Your task to perform on an android device: change keyboard looks Image 0: 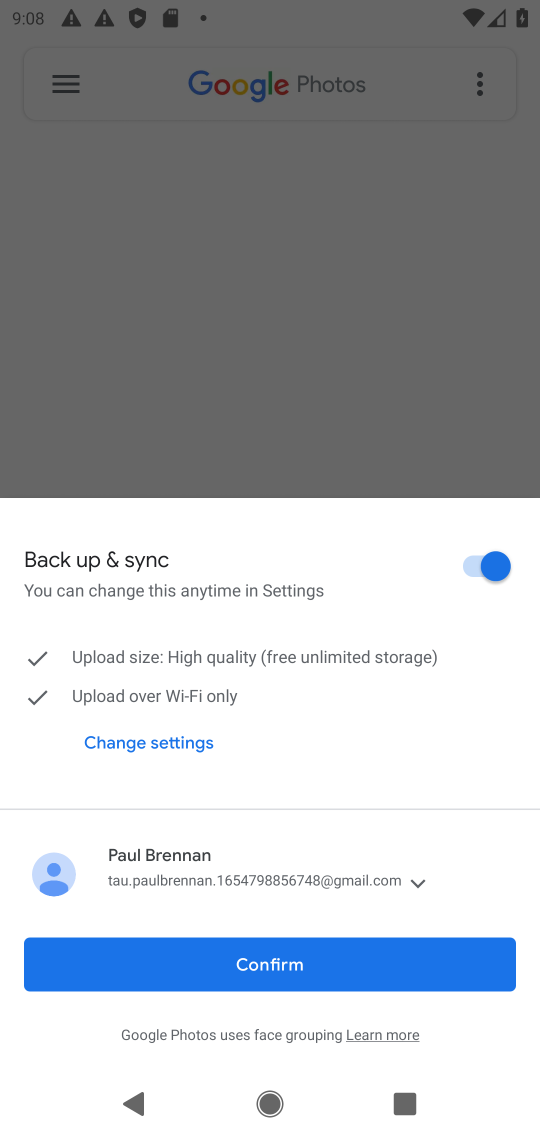
Step 0: click (264, 970)
Your task to perform on an android device: change keyboard looks Image 1: 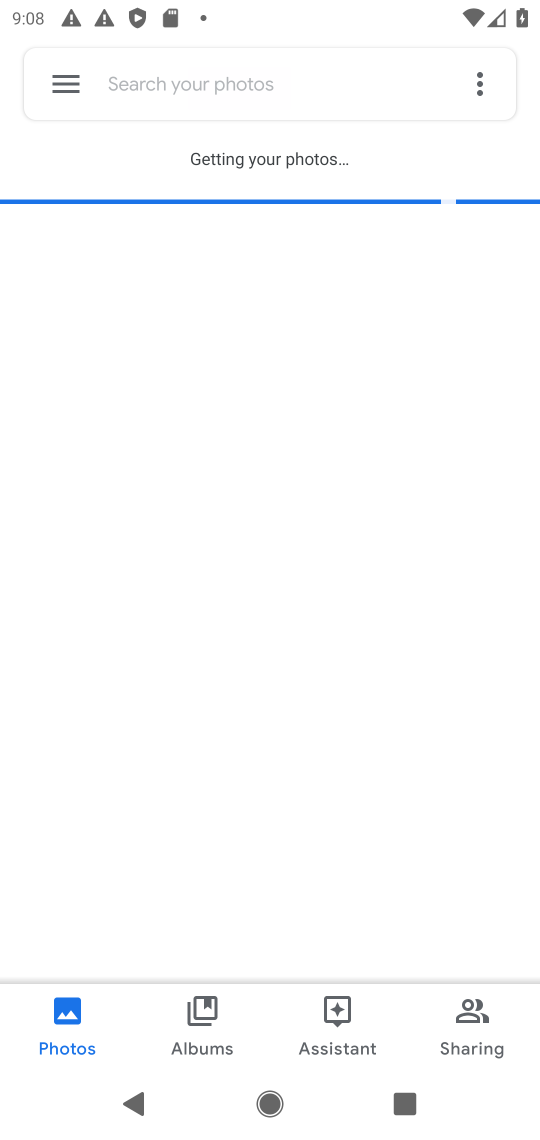
Step 1: press home button
Your task to perform on an android device: change keyboard looks Image 2: 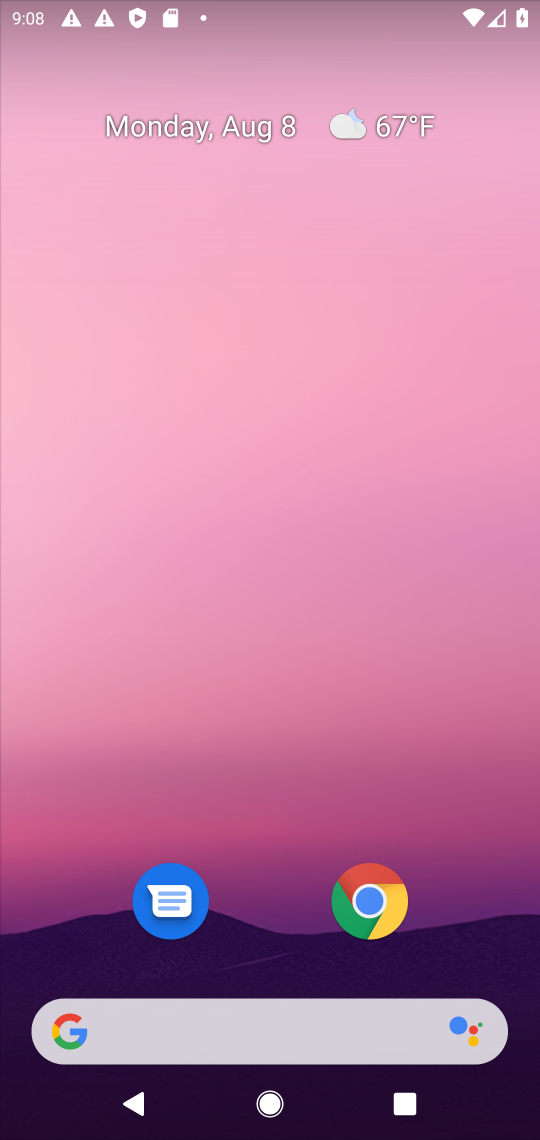
Step 2: click (235, 112)
Your task to perform on an android device: change keyboard looks Image 3: 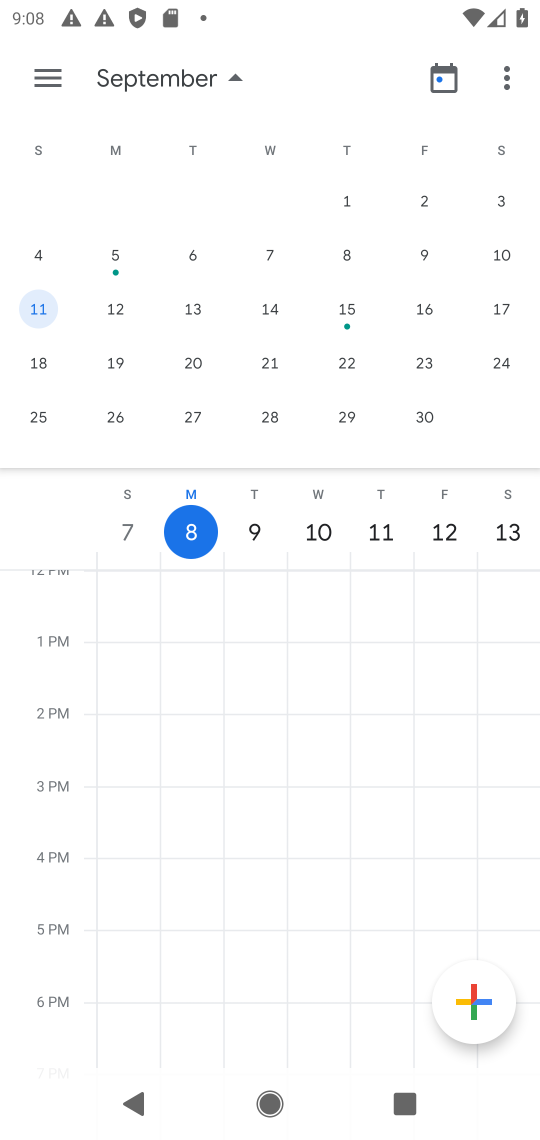
Step 3: click (295, 922)
Your task to perform on an android device: change keyboard looks Image 4: 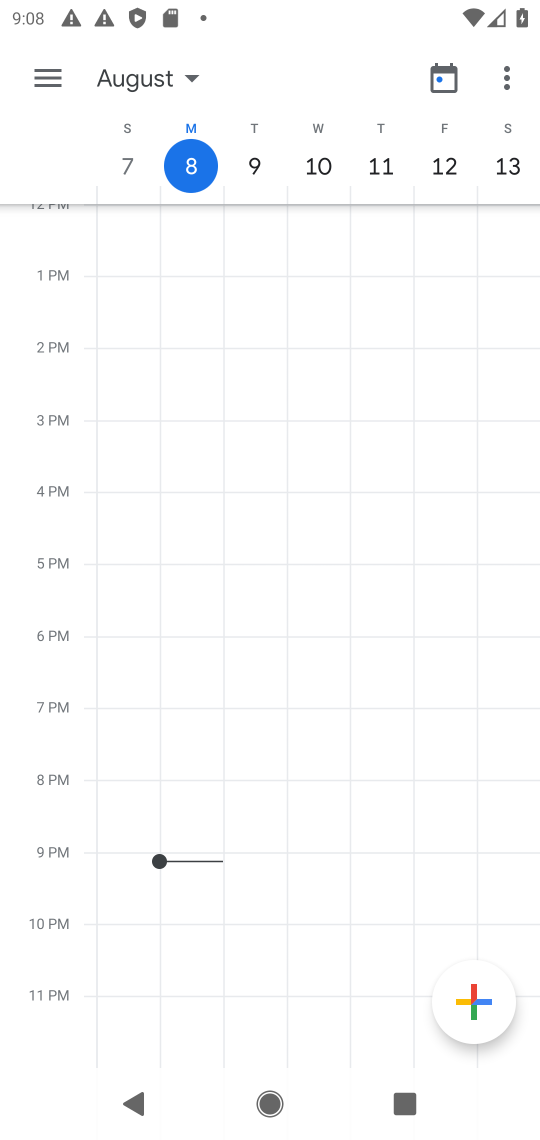
Step 4: press home button
Your task to perform on an android device: change keyboard looks Image 5: 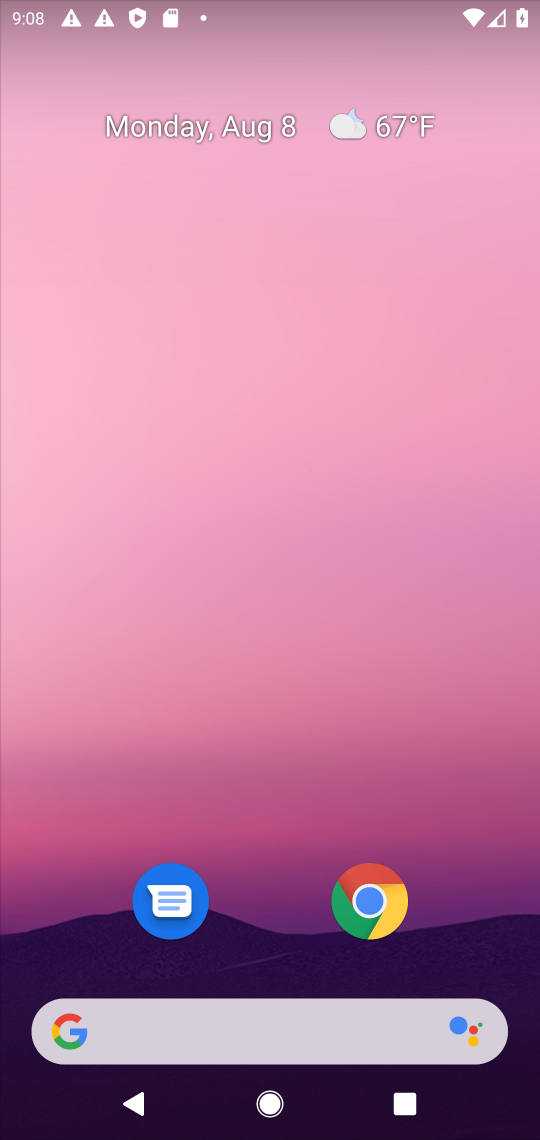
Step 5: drag from (290, 942) to (336, 4)
Your task to perform on an android device: change keyboard looks Image 6: 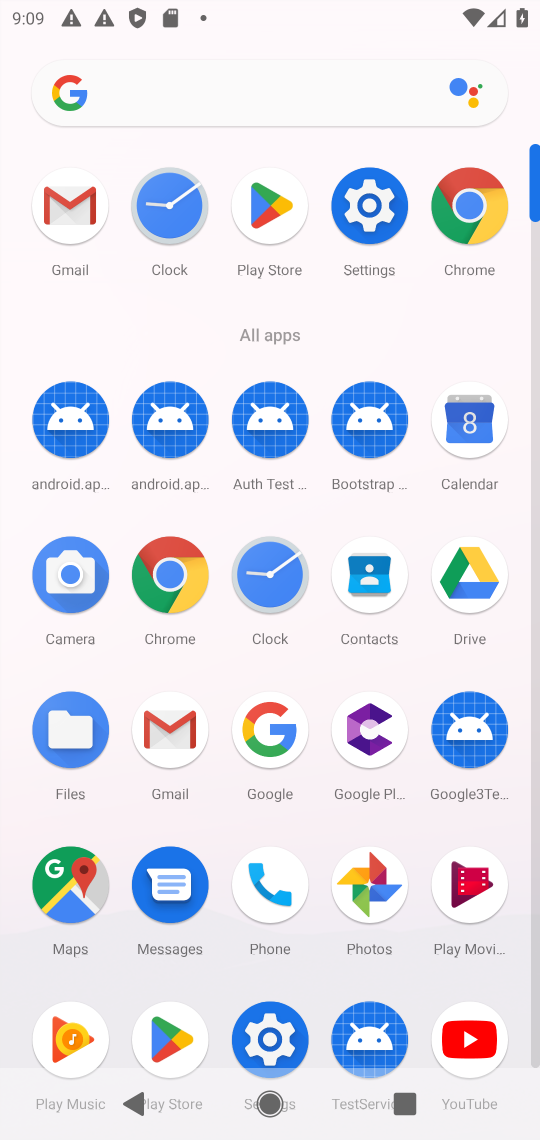
Step 6: click (368, 205)
Your task to perform on an android device: change keyboard looks Image 7: 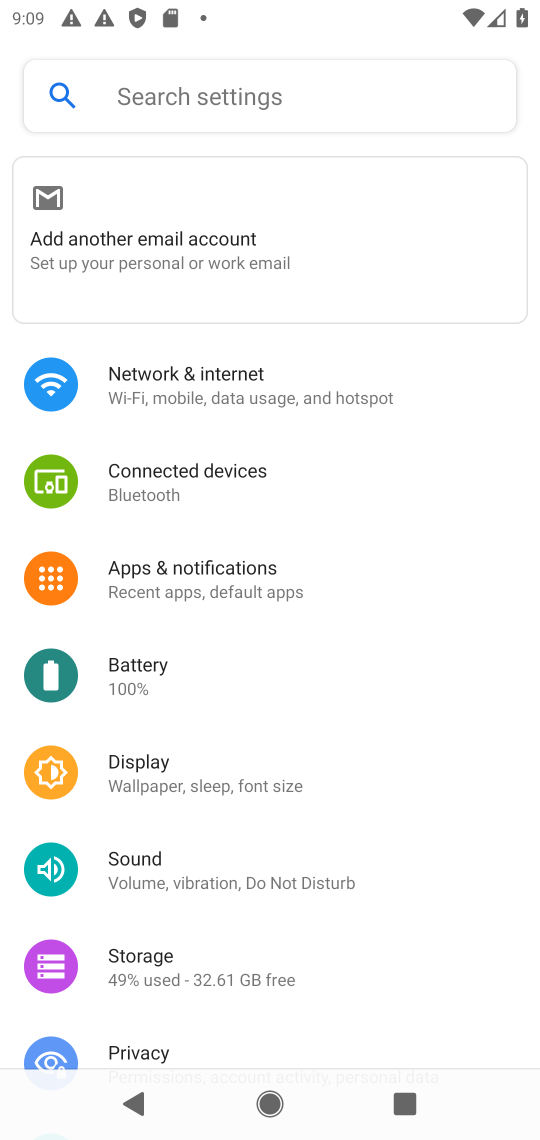
Step 7: drag from (176, 970) to (186, 446)
Your task to perform on an android device: change keyboard looks Image 8: 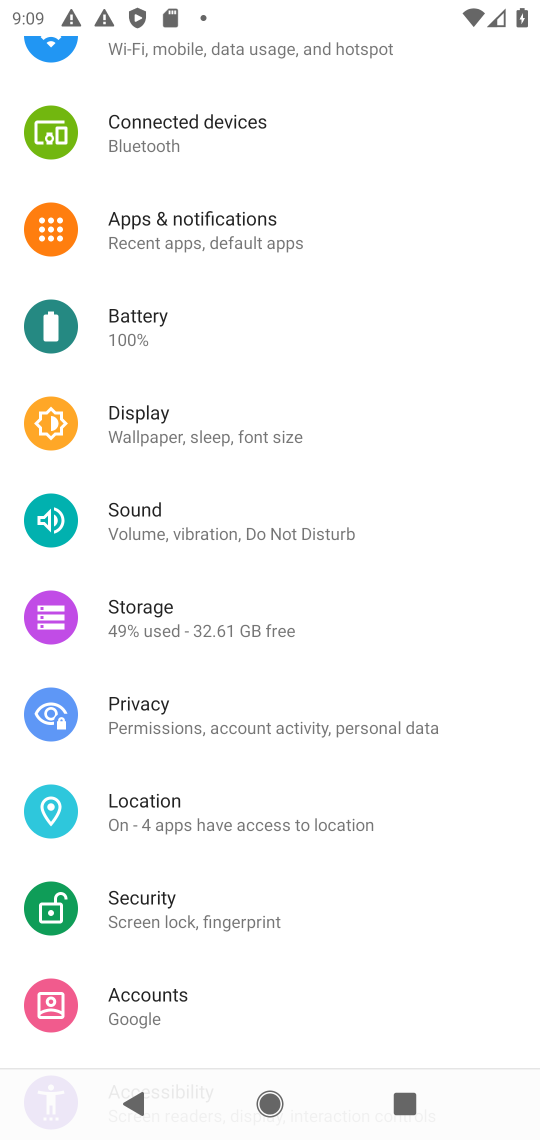
Step 8: drag from (150, 888) to (164, 514)
Your task to perform on an android device: change keyboard looks Image 9: 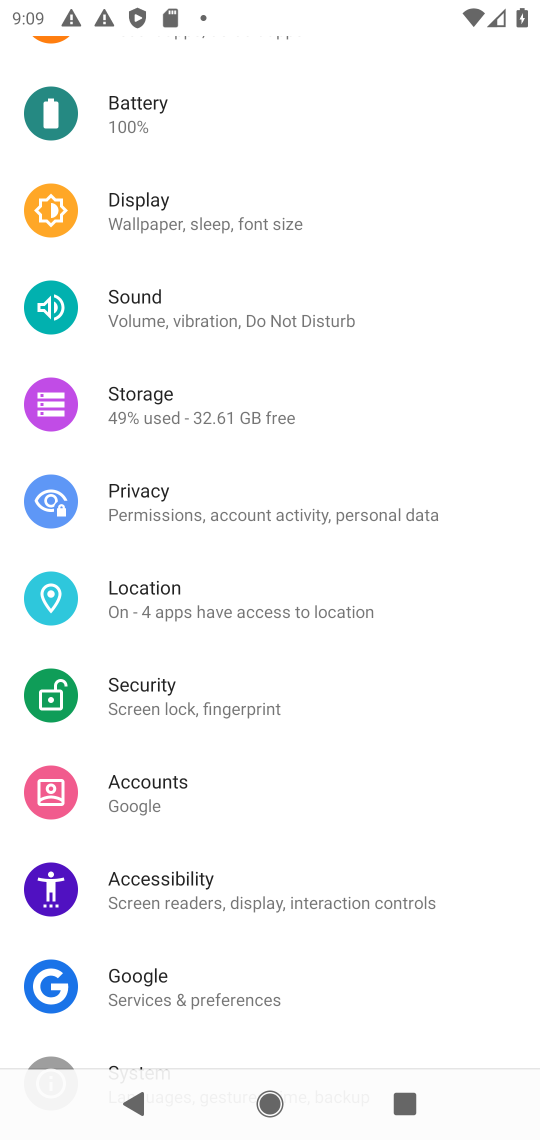
Step 9: drag from (173, 982) to (198, 381)
Your task to perform on an android device: change keyboard looks Image 10: 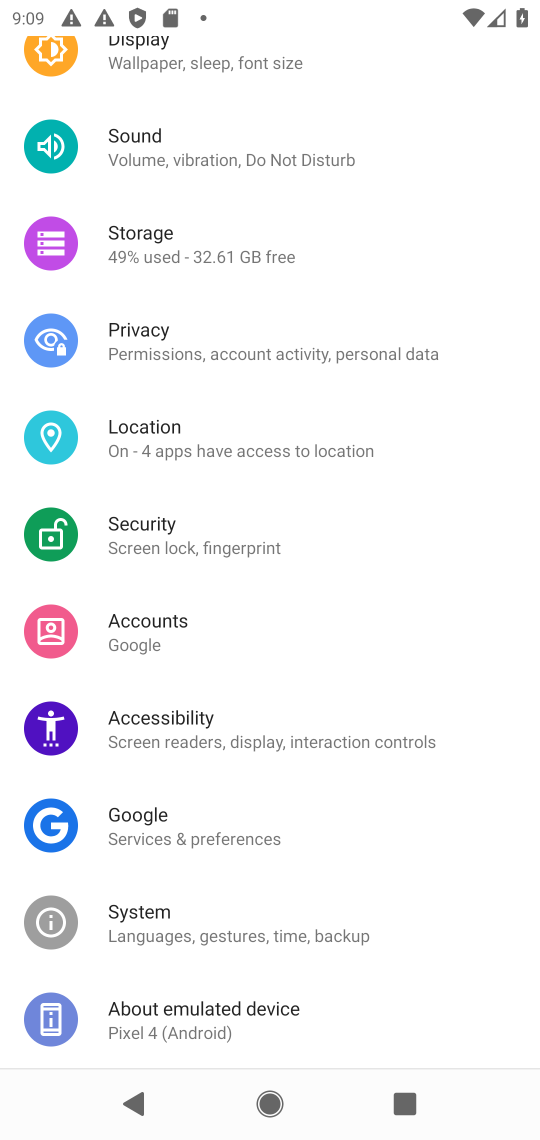
Step 10: click (157, 910)
Your task to perform on an android device: change keyboard looks Image 11: 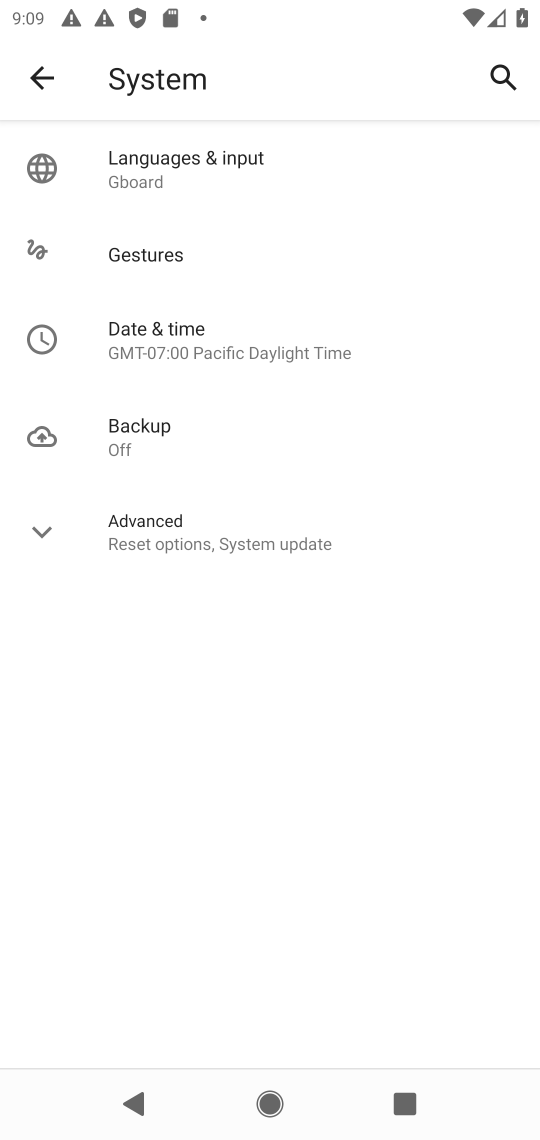
Step 11: click (133, 177)
Your task to perform on an android device: change keyboard looks Image 12: 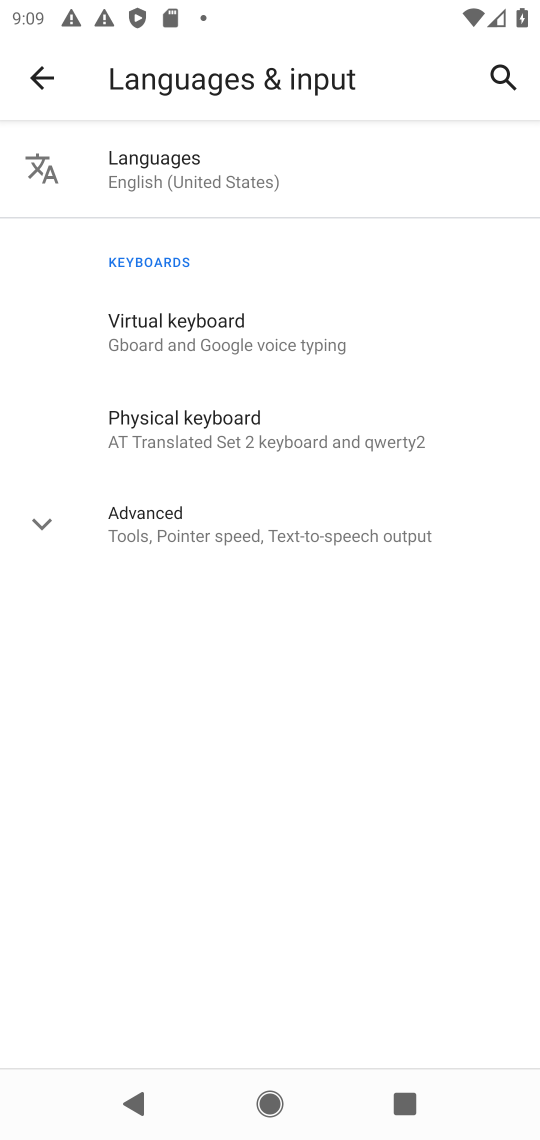
Step 12: click (158, 354)
Your task to perform on an android device: change keyboard looks Image 13: 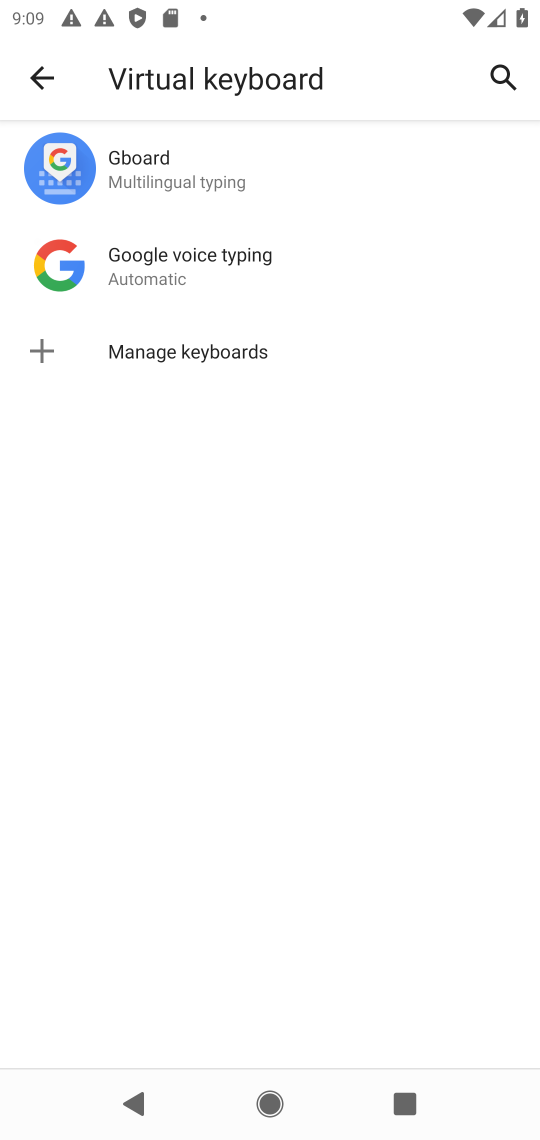
Step 13: click (143, 156)
Your task to perform on an android device: change keyboard looks Image 14: 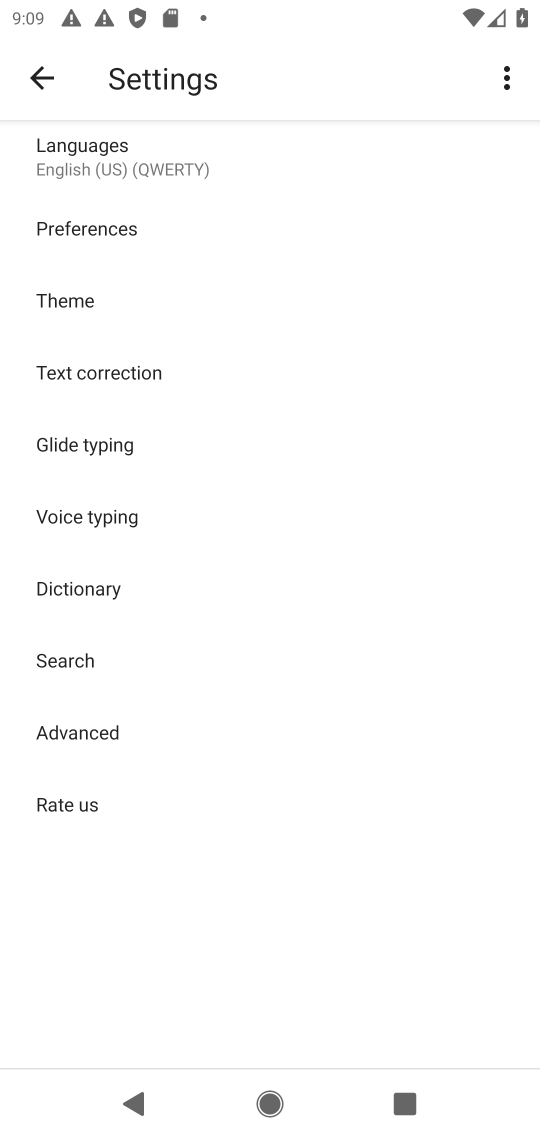
Step 14: click (74, 314)
Your task to perform on an android device: change keyboard looks Image 15: 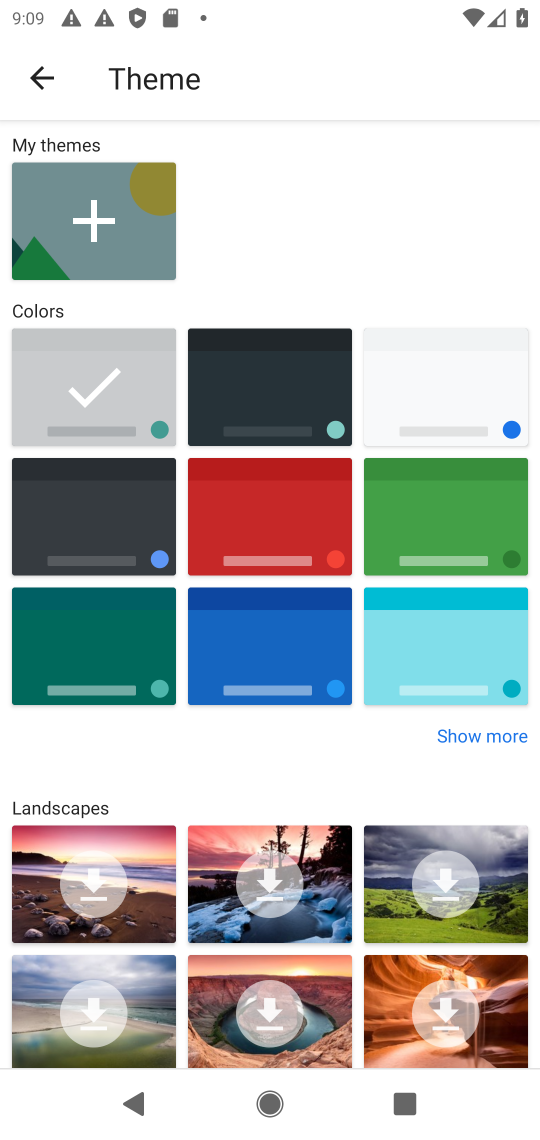
Step 15: click (248, 385)
Your task to perform on an android device: change keyboard looks Image 16: 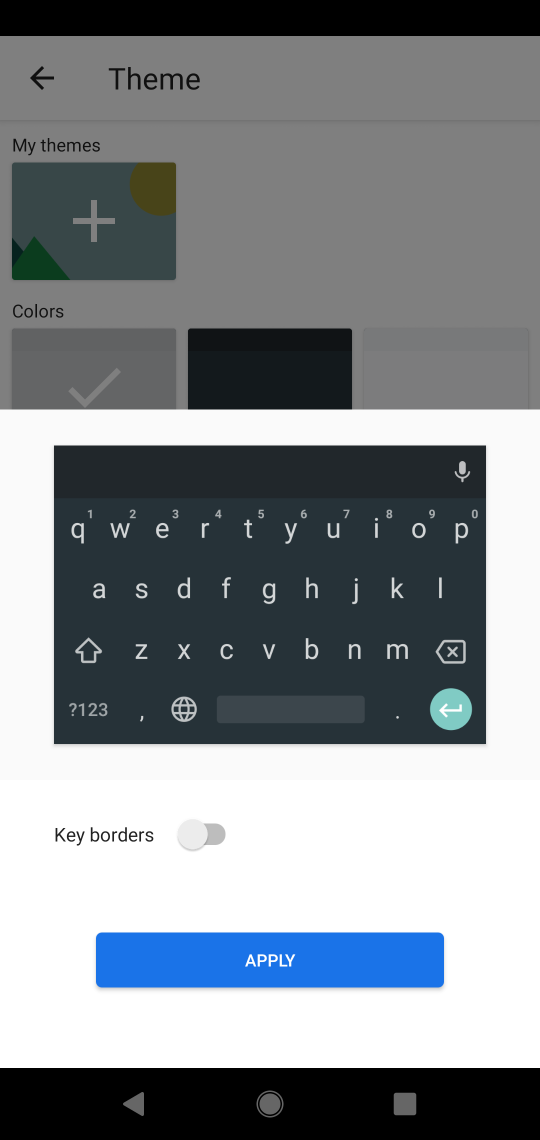
Step 16: click (277, 944)
Your task to perform on an android device: change keyboard looks Image 17: 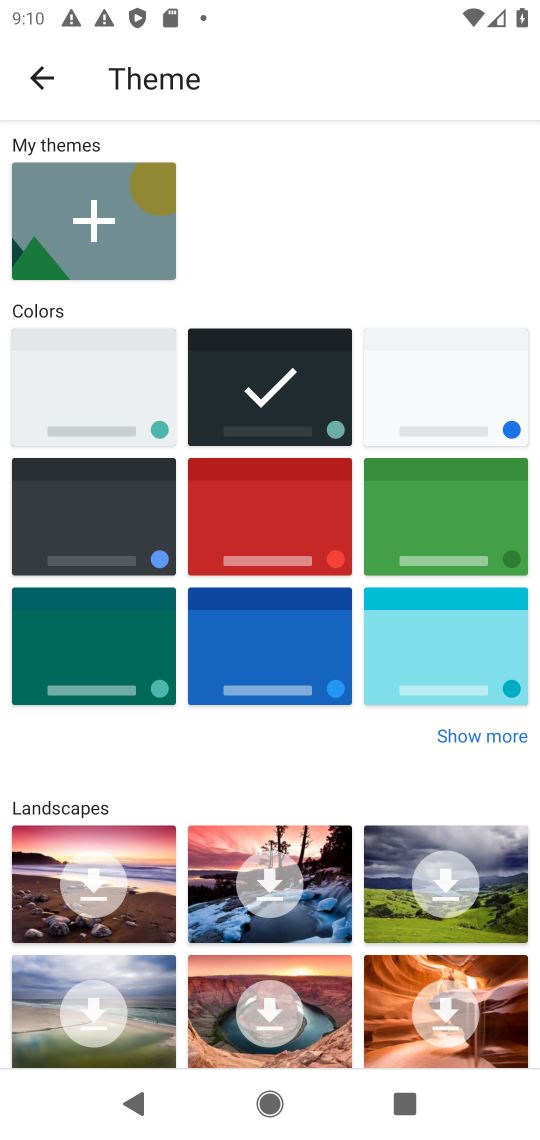
Step 17: task complete